Your task to perform on an android device: delete the emails in spam in the gmail app Image 0: 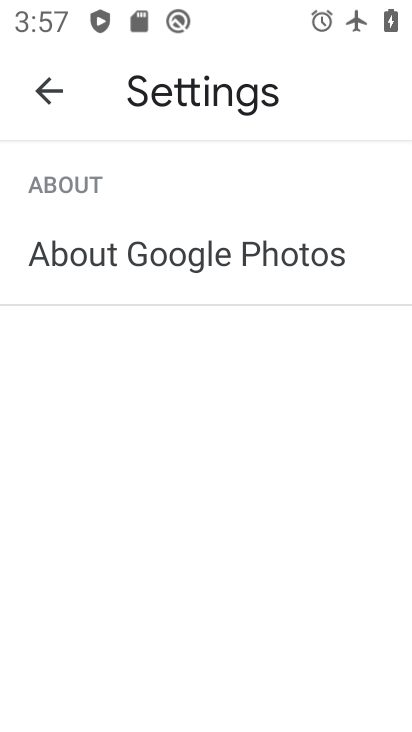
Step 0: press home button
Your task to perform on an android device: delete the emails in spam in the gmail app Image 1: 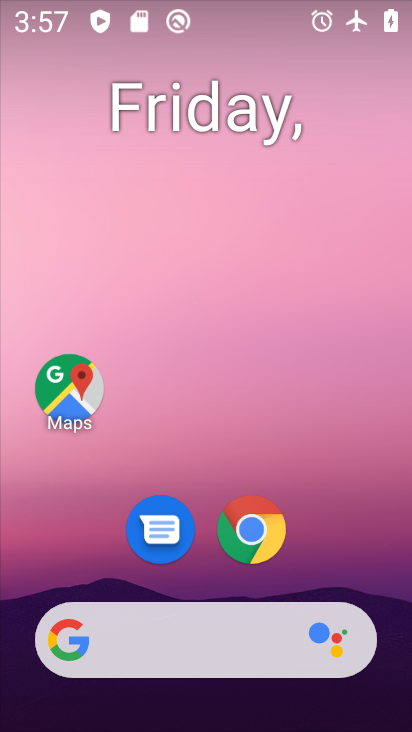
Step 1: drag from (81, 631) to (220, 152)
Your task to perform on an android device: delete the emails in spam in the gmail app Image 2: 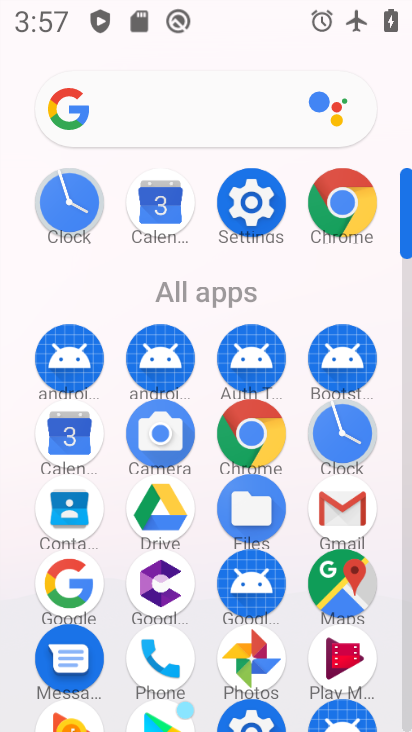
Step 2: click (324, 501)
Your task to perform on an android device: delete the emails in spam in the gmail app Image 3: 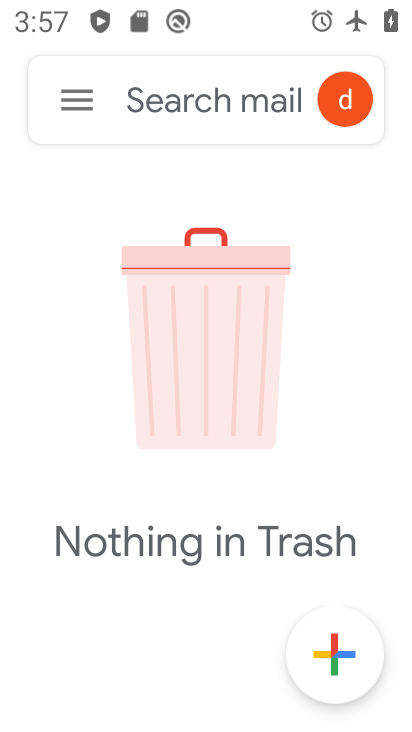
Step 3: click (96, 118)
Your task to perform on an android device: delete the emails in spam in the gmail app Image 4: 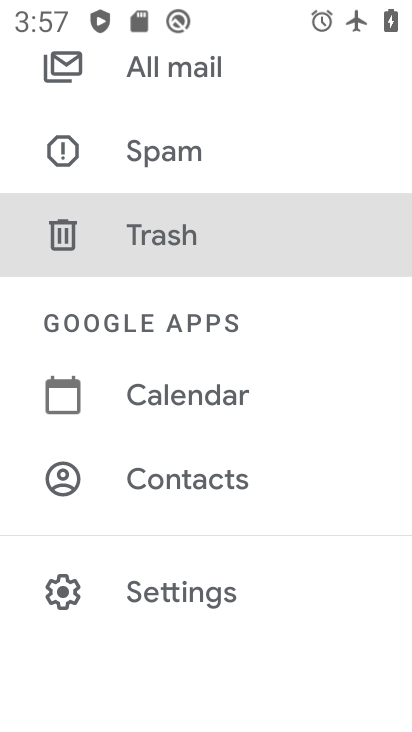
Step 4: drag from (157, 643) to (227, 678)
Your task to perform on an android device: delete the emails in spam in the gmail app Image 5: 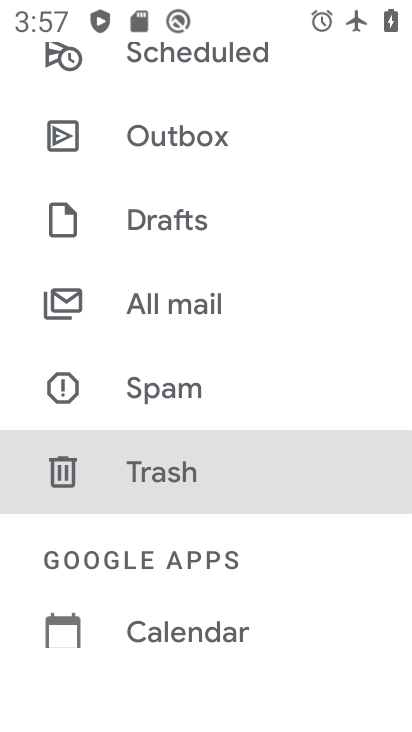
Step 5: drag from (220, 247) to (201, 562)
Your task to perform on an android device: delete the emails in spam in the gmail app Image 6: 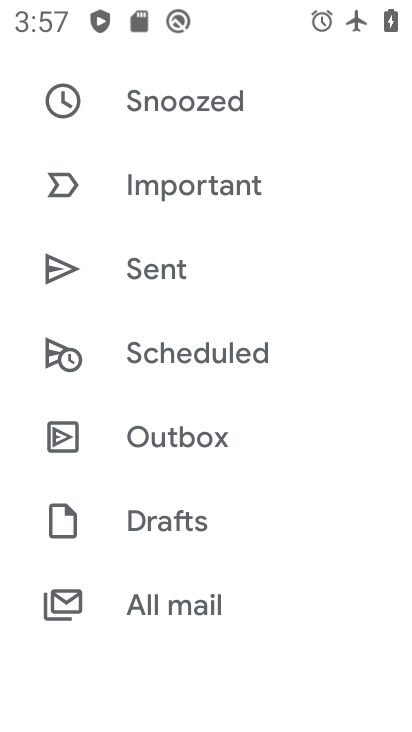
Step 6: drag from (204, 184) to (310, 119)
Your task to perform on an android device: delete the emails in spam in the gmail app Image 7: 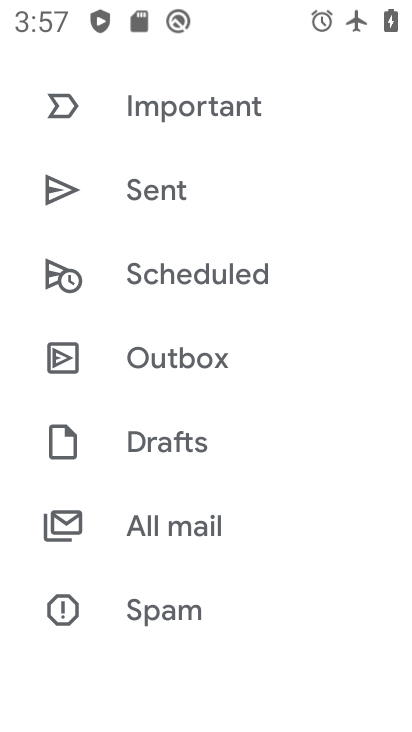
Step 7: click (155, 599)
Your task to perform on an android device: delete the emails in spam in the gmail app Image 8: 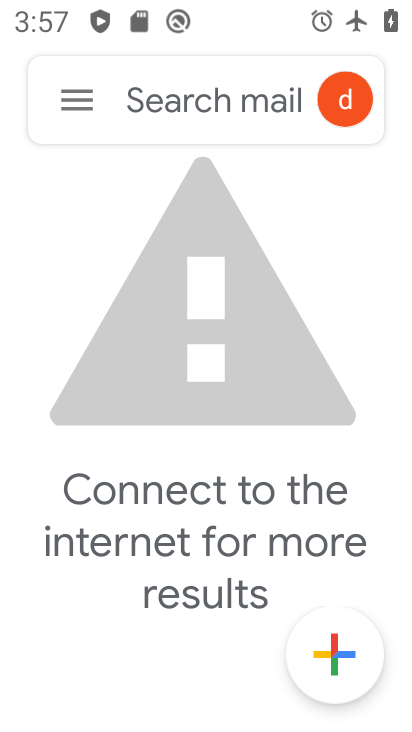
Step 8: task complete